Your task to perform on an android device: turn off airplane mode Image 0: 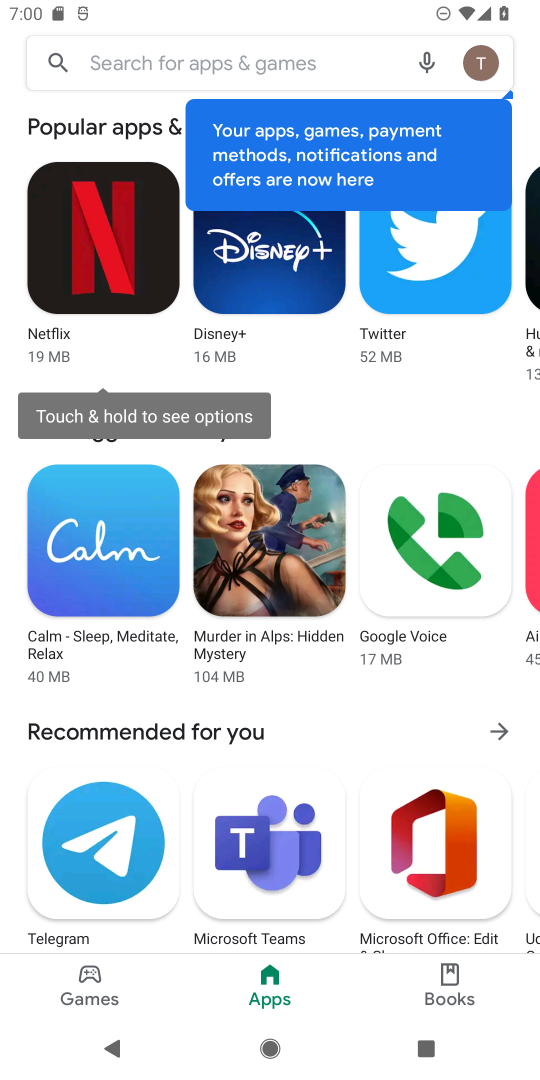
Step 0: press home button
Your task to perform on an android device: turn off airplane mode Image 1: 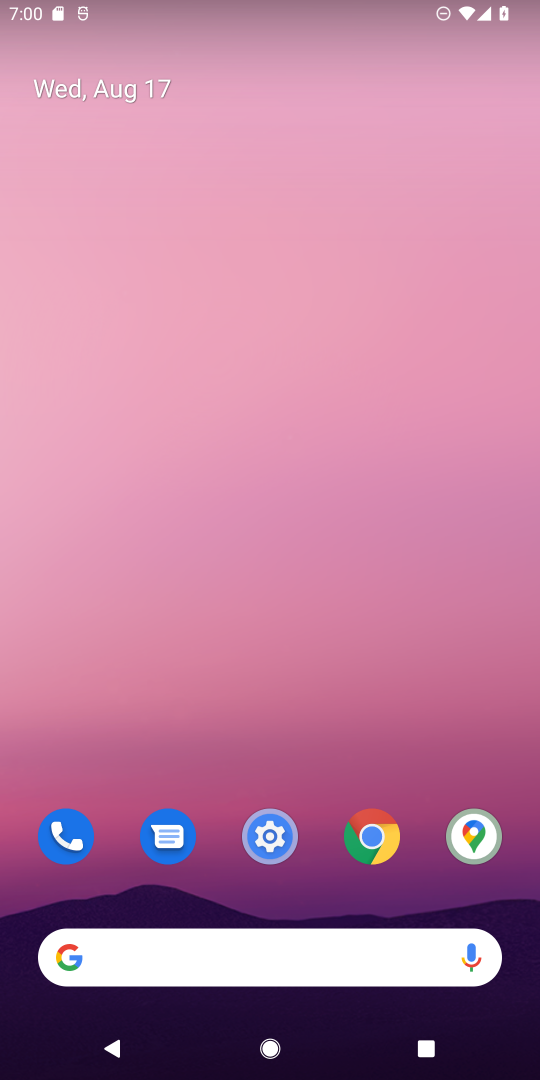
Step 1: drag from (167, 881) to (186, 135)
Your task to perform on an android device: turn off airplane mode Image 2: 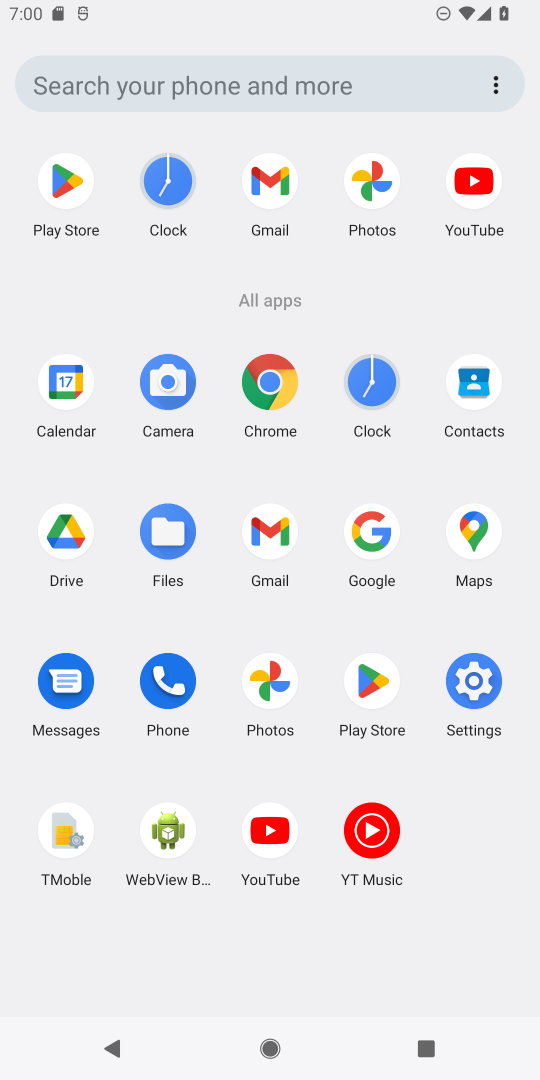
Step 2: click (477, 670)
Your task to perform on an android device: turn off airplane mode Image 3: 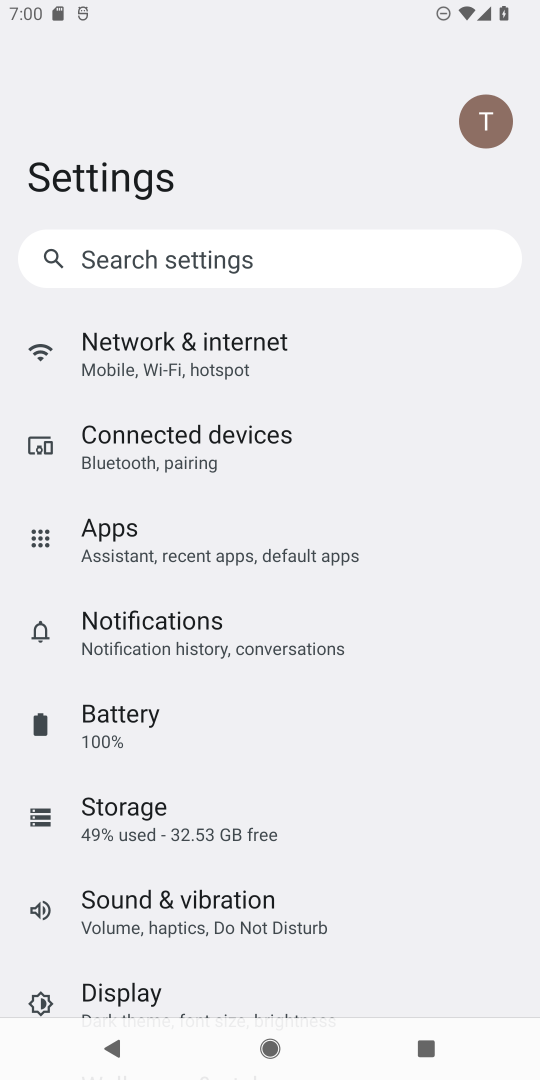
Step 3: click (269, 351)
Your task to perform on an android device: turn off airplane mode Image 4: 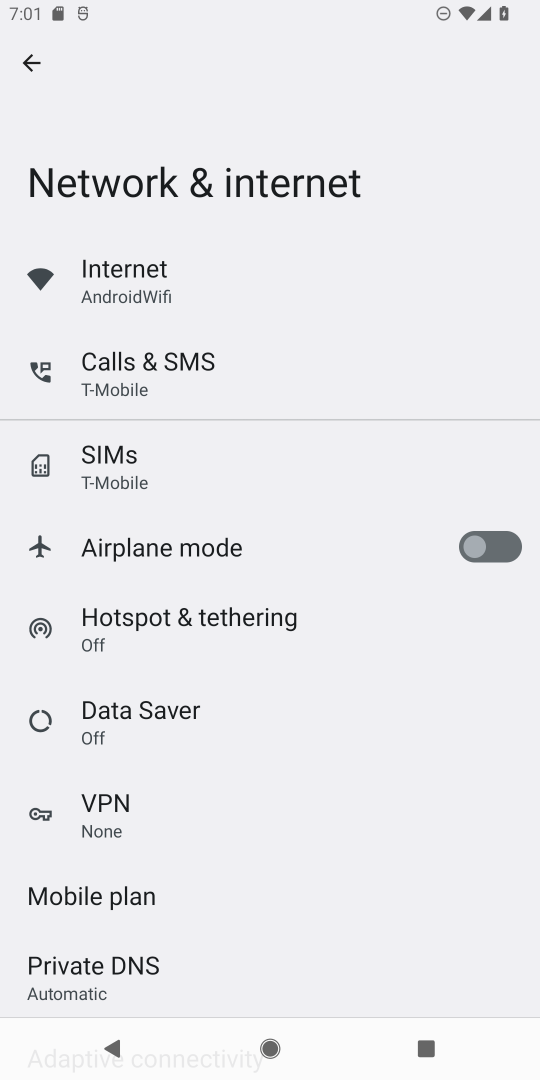
Step 4: task complete